Your task to perform on an android device: turn on location history Image 0: 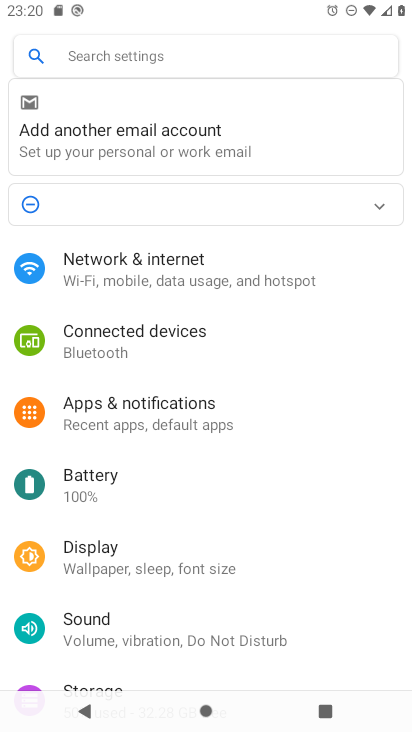
Step 0: press home button
Your task to perform on an android device: turn on location history Image 1: 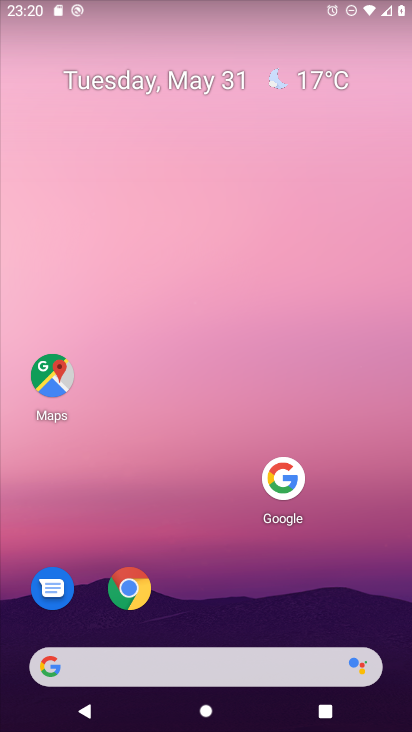
Step 1: click (51, 383)
Your task to perform on an android device: turn on location history Image 2: 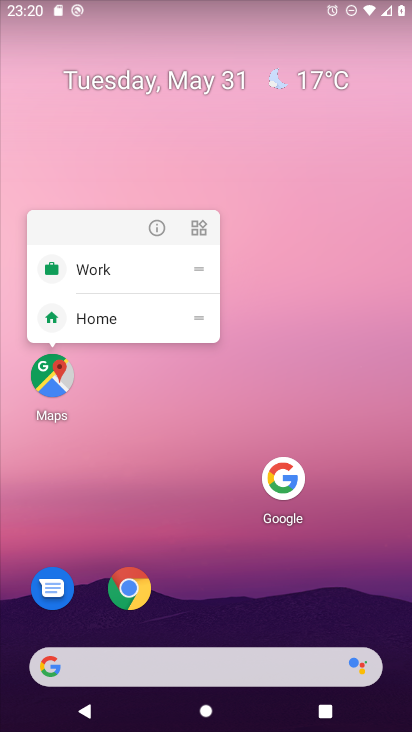
Step 2: click (52, 381)
Your task to perform on an android device: turn on location history Image 3: 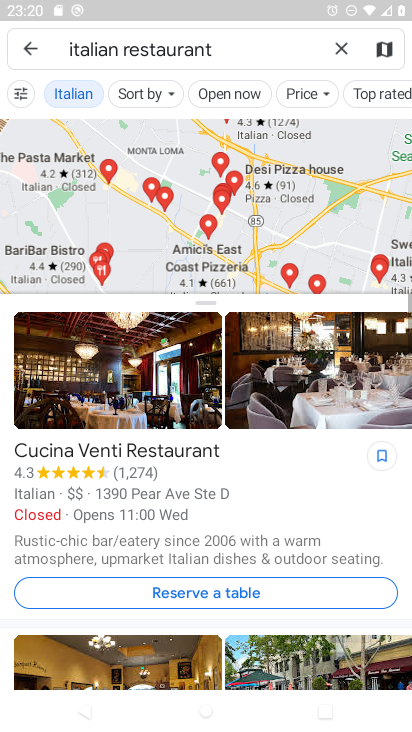
Step 3: click (35, 47)
Your task to perform on an android device: turn on location history Image 4: 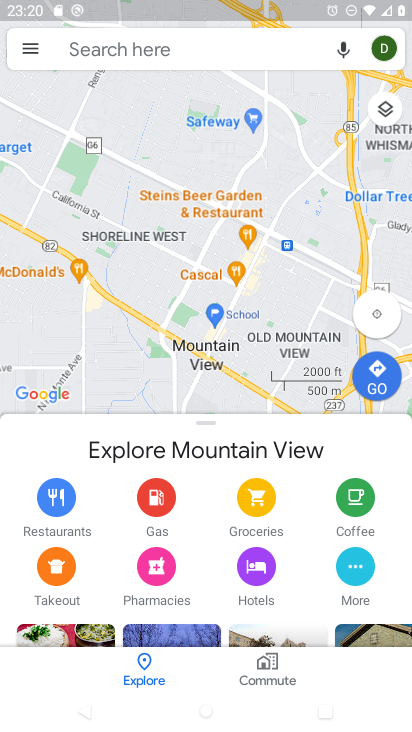
Step 4: click (33, 48)
Your task to perform on an android device: turn on location history Image 5: 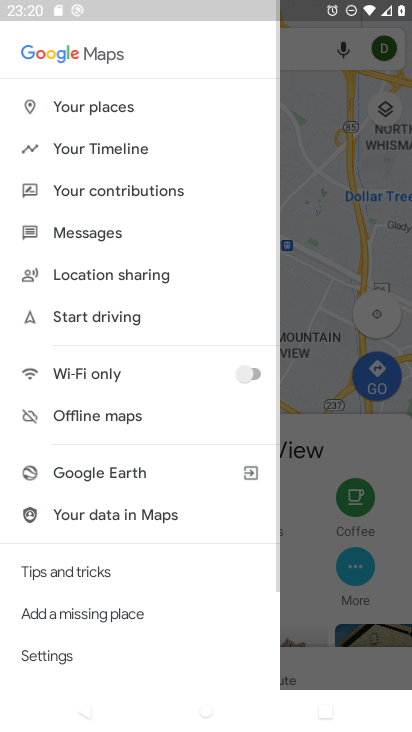
Step 5: click (123, 154)
Your task to perform on an android device: turn on location history Image 6: 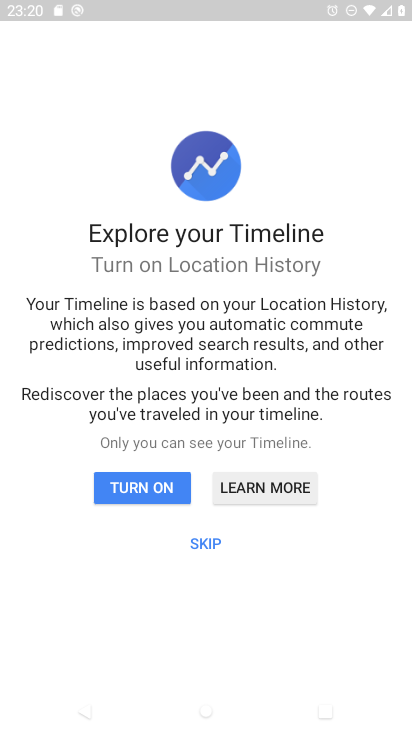
Step 6: click (202, 540)
Your task to perform on an android device: turn on location history Image 7: 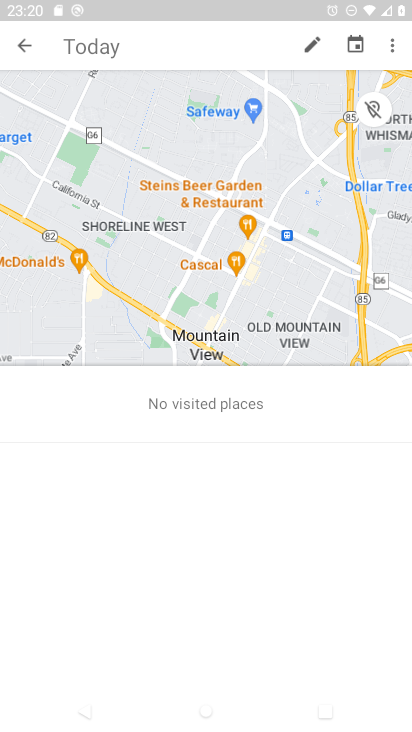
Step 7: click (391, 48)
Your task to perform on an android device: turn on location history Image 8: 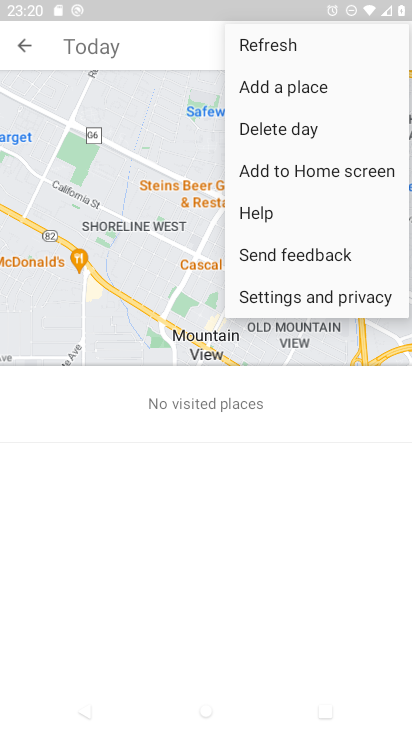
Step 8: click (281, 301)
Your task to perform on an android device: turn on location history Image 9: 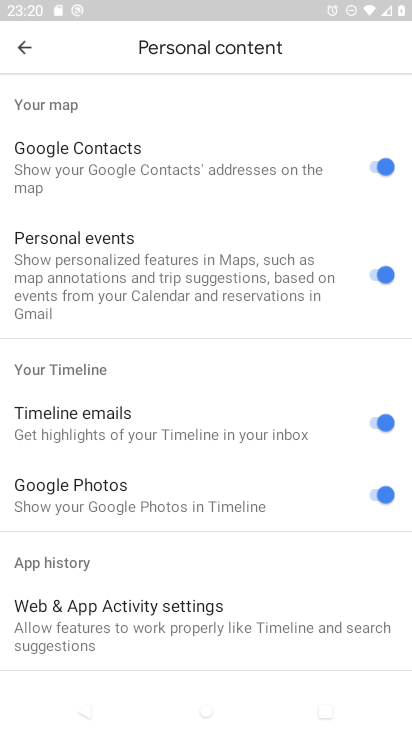
Step 9: drag from (199, 628) to (260, 175)
Your task to perform on an android device: turn on location history Image 10: 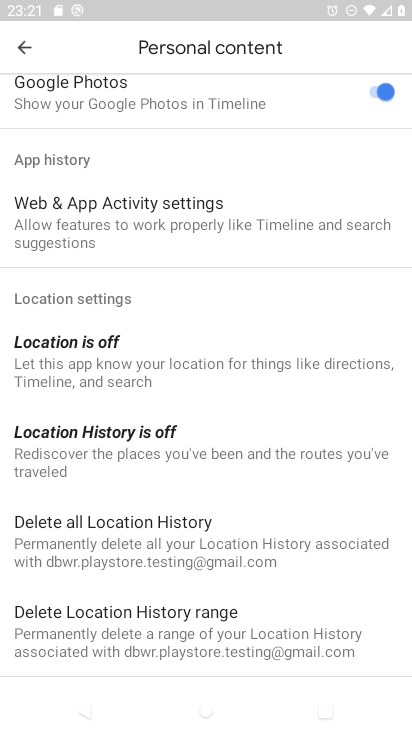
Step 10: click (127, 433)
Your task to perform on an android device: turn on location history Image 11: 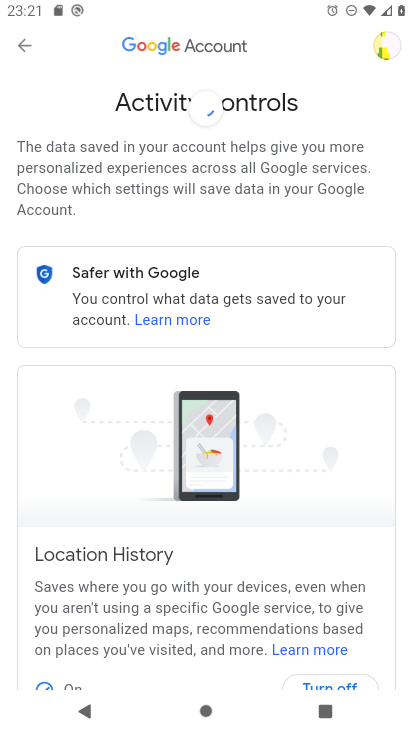
Step 11: task complete